Your task to perform on an android device: stop showing notifications on the lock screen Image 0: 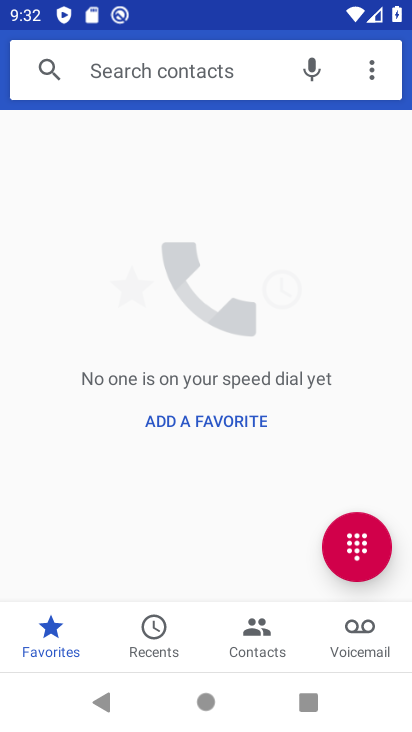
Step 0: press home button
Your task to perform on an android device: stop showing notifications on the lock screen Image 1: 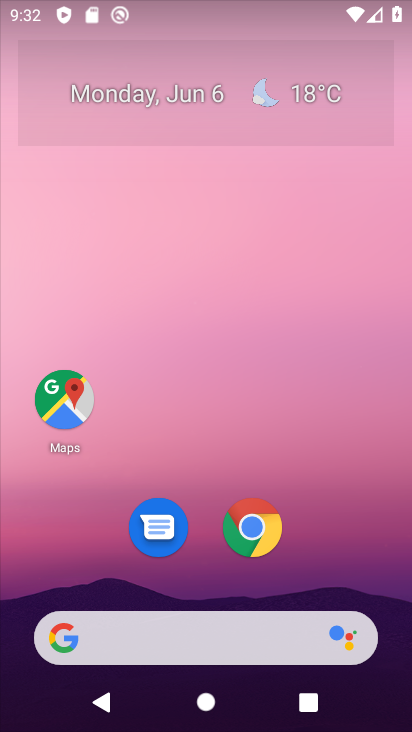
Step 1: drag from (339, 564) to (275, 195)
Your task to perform on an android device: stop showing notifications on the lock screen Image 2: 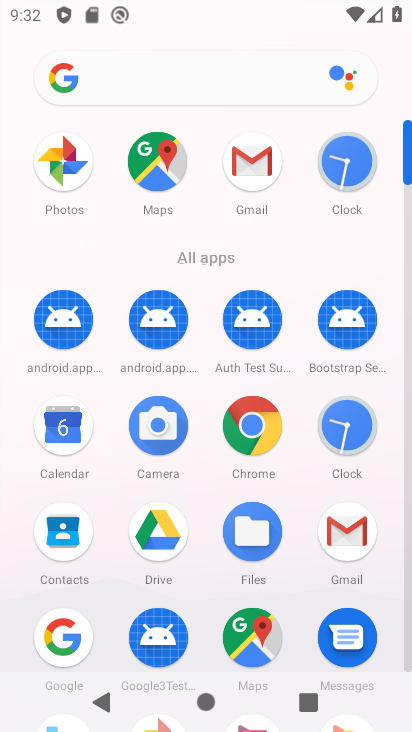
Step 2: click (404, 650)
Your task to perform on an android device: stop showing notifications on the lock screen Image 3: 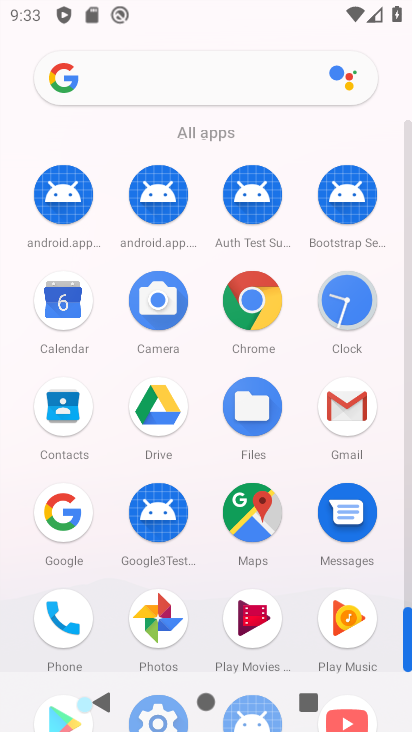
Step 3: drag from (393, 605) to (385, 449)
Your task to perform on an android device: stop showing notifications on the lock screen Image 4: 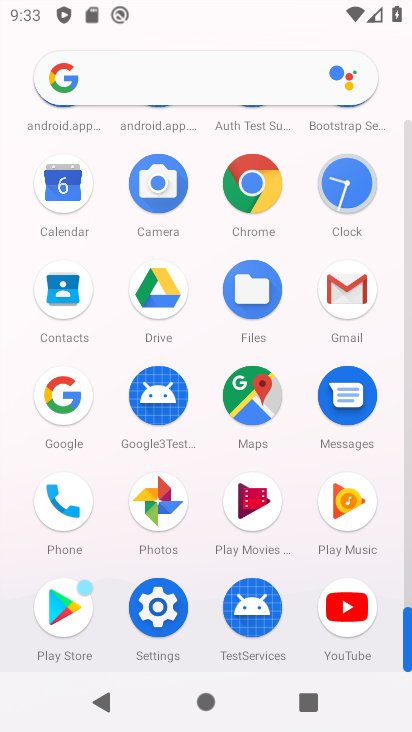
Step 4: click (141, 600)
Your task to perform on an android device: stop showing notifications on the lock screen Image 5: 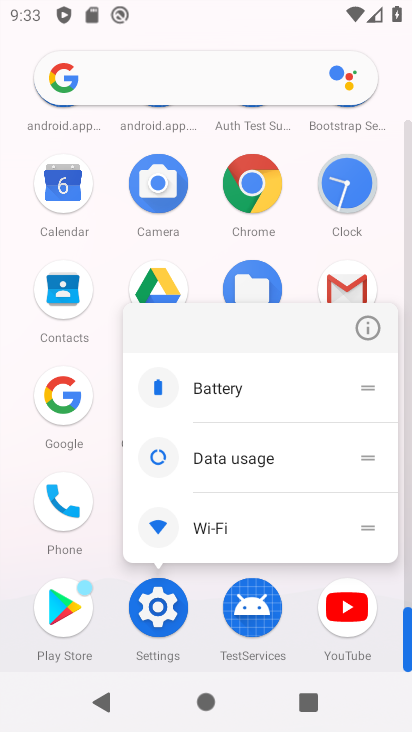
Step 5: click (147, 602)
Your task to perform on an android device: stop showing notifications on the lock screen Image 6: 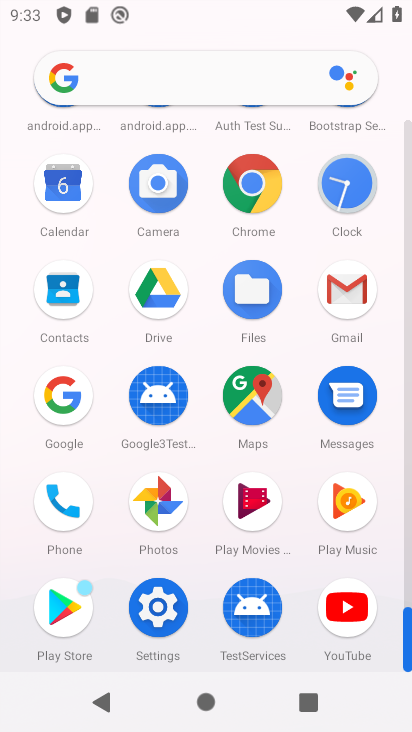
Step 6: click (164, 621)
Your task to perform on an android device: stop showing notifications on the lock screen Image 7: 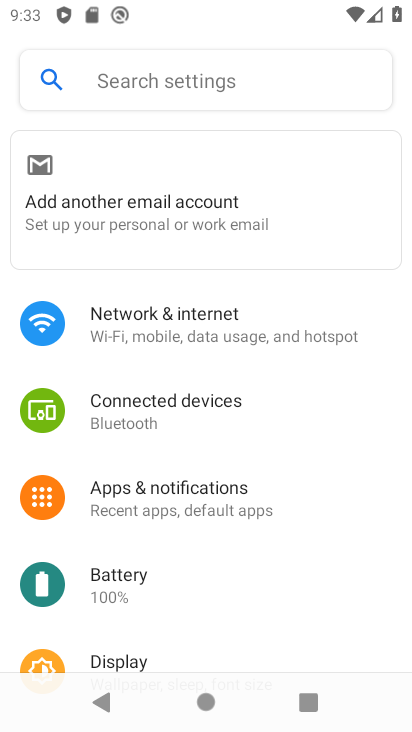
Step 7: drag from (193, 373) to (181, 189)
Your task to perform on an android device: stop showing notifications on the lock screen Image 8: 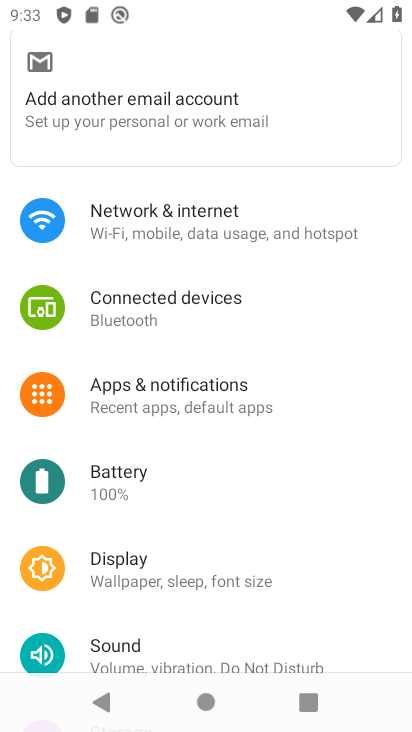
Step 8: click (246, 395)
Your task to perform on an android device: stop showing notifications on the lock screen Image 9: 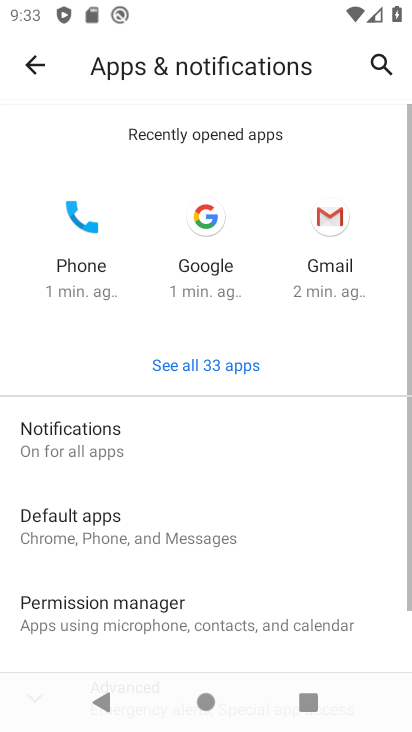
Step 9: click (236, 439)
Your task to perform on an android device: stop showing notifications on the lock screen Image 10: 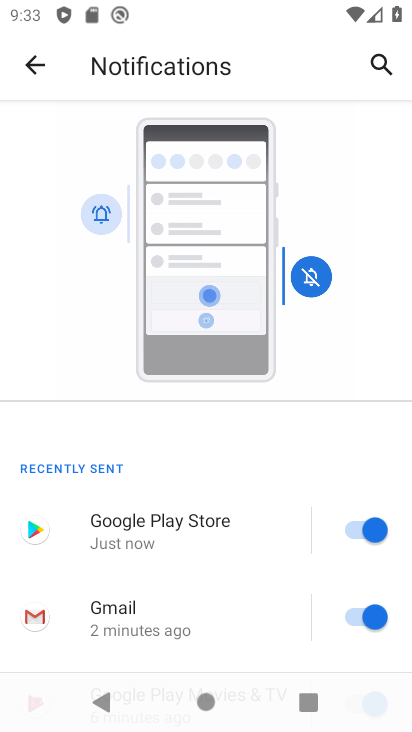
Step 10: drag from (255, 616) to (184, 99)
Your task to perform on an android device: stop showing notifications on the lock screen Image 11: 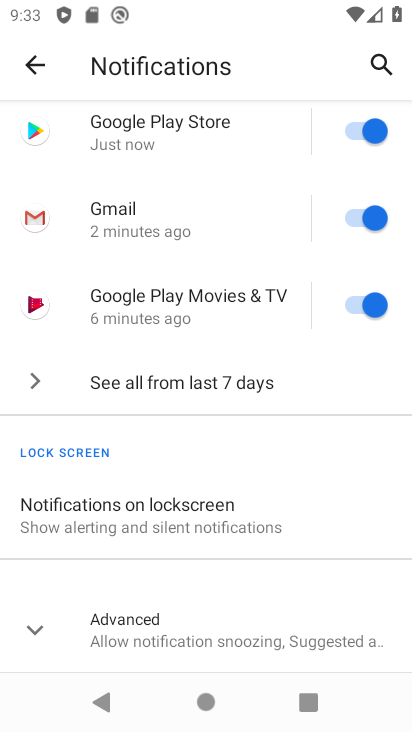
Step 11: click (263, 497)
Your task to perform on an android device: stop showing notifications on the lock screen Image 12: 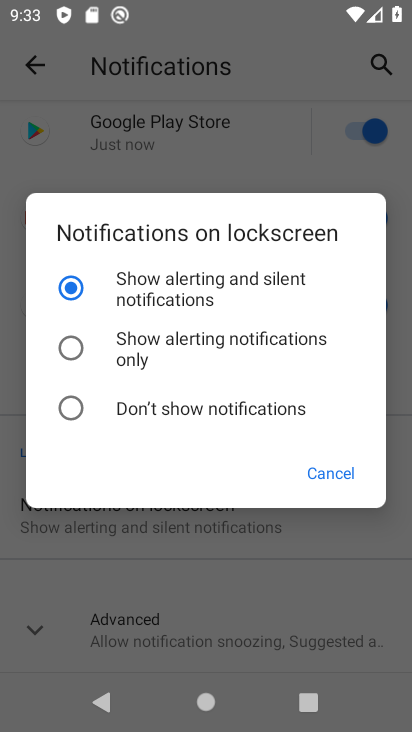
Step 12: click (212, 419)
Your task to perform on an android device: stop showing notifications on the lock screen Image 13: 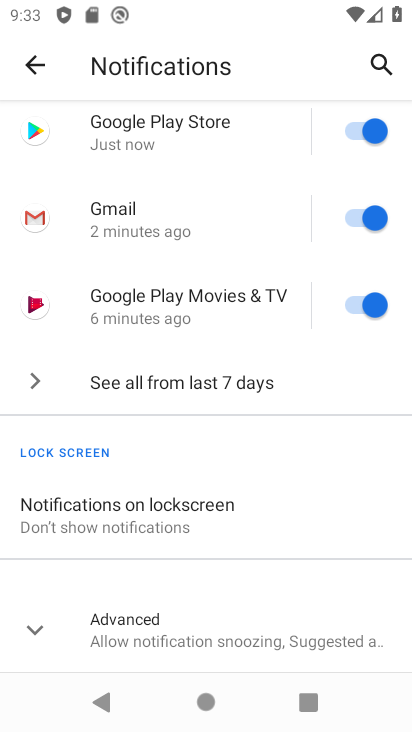
Step 13: task complete